Your task to perform on an android device: turn off improve location accuracy Image 0: 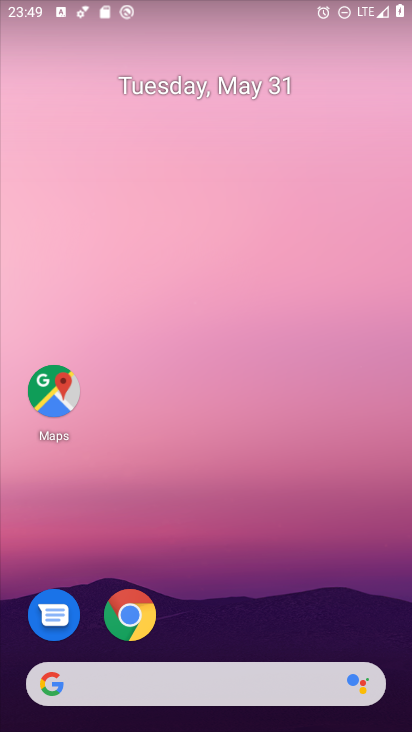
Step 0: drag from (394, 656) to (316, 82)
Your task to perform on an android device: turn off improve location accuracy Image 1: 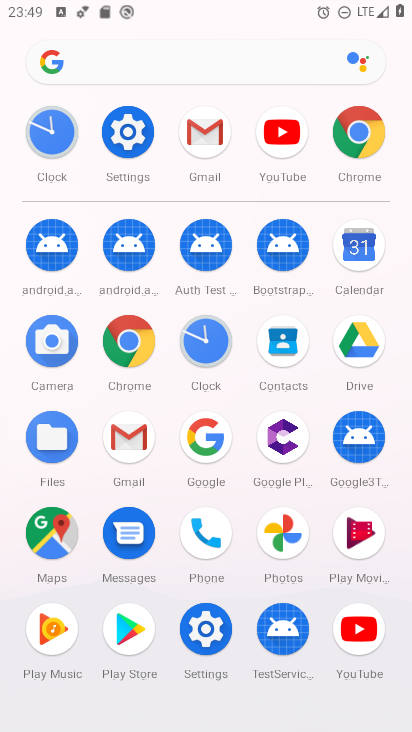
Step 1: click (207, 632)
Your task to perform on an android device: turn off improve location accuracy Image 2: 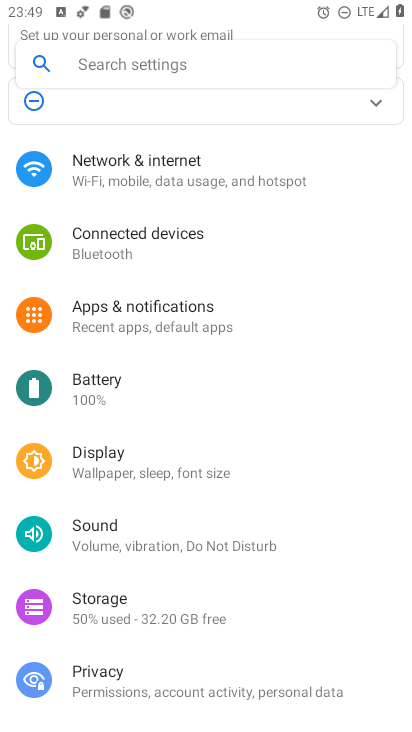
Step 2: drag from (326, 578) to (288, 280)
Your task to perform on an android device: turn off improve location accuracy Image 3: 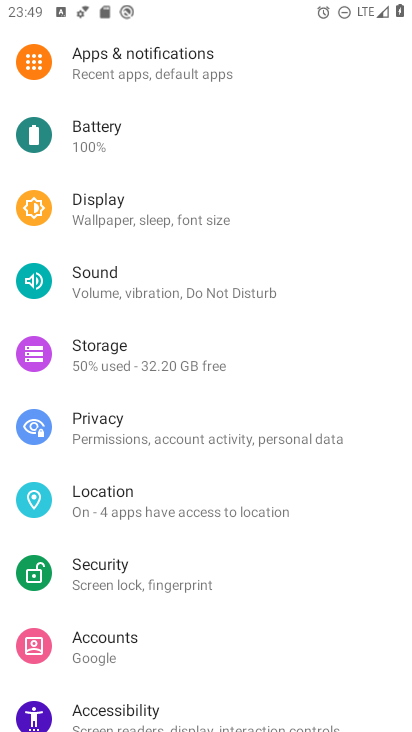
Step 3: click (100, 493)
Your task to perform on an android device: turn off improve location accuracy Image 4: 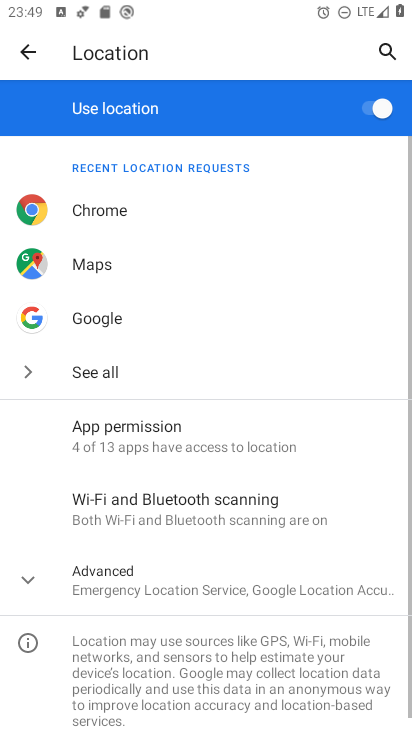
Step 4: click (63, 585)
Your task to perform on an android device: turn off improve location accuracy Image 5: 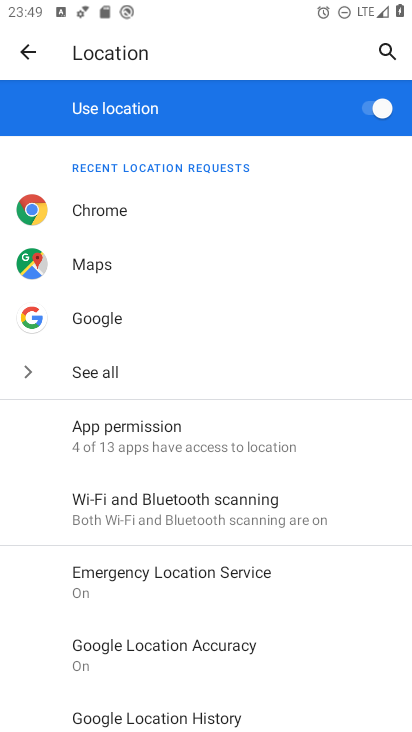
Step 5: drag from (298, 662) to (314, 313)
Your task to perform on an android device: turn off improve location accuracy Image 6: 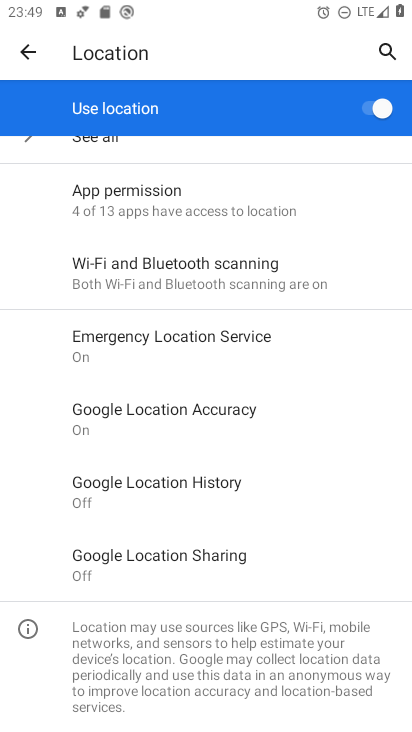
Step 6: click (133, 406)
Your task to perform on an android device: turn off improve location accuracy Image 7: 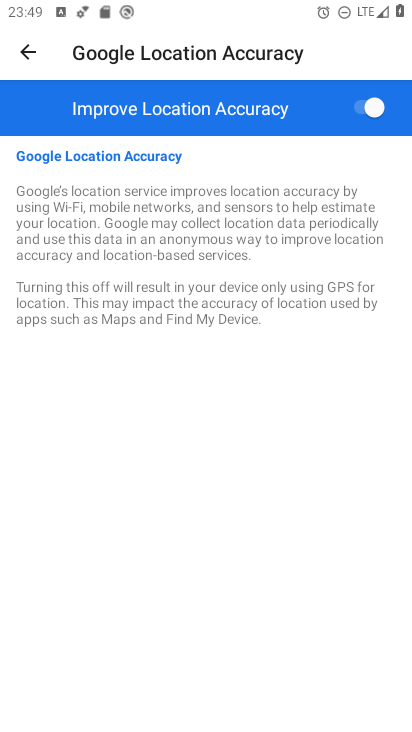
Step 7: click (360, 103)
Your task to perform on an android device: turn off improve location accuracy Image 8: 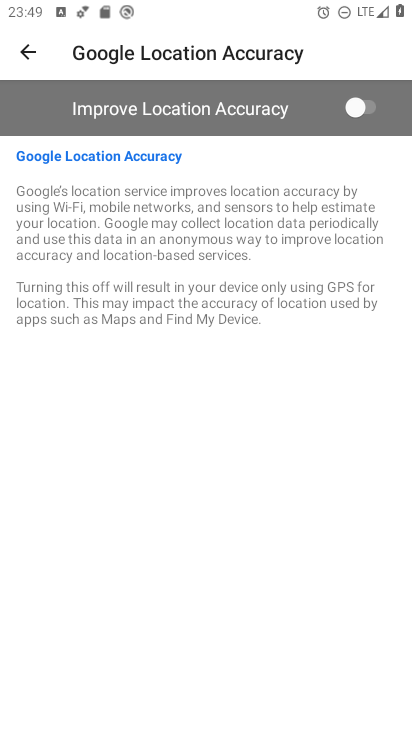
Step 8: task complete